Your task to perform on an android device: change notifications settings Image 0: 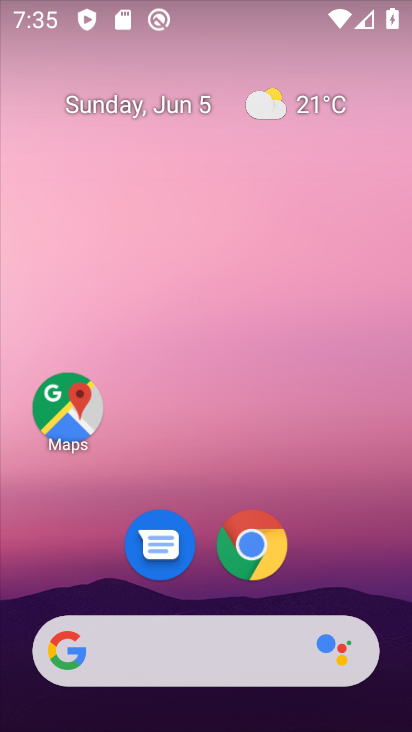
Step 0: drag from (249, 576) to (231, 192)
Your task to perform on an android device: change notifications settings Image 1: 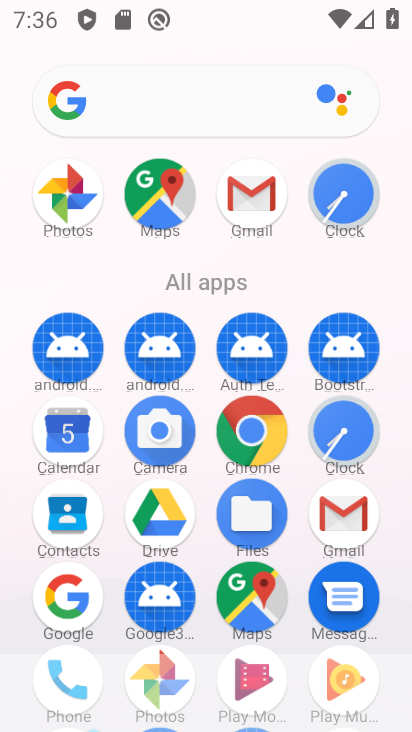
Step 1: drag from (201, 425) to (209, 16)
Your task to perform on an android device: change notifications settings Image 2: 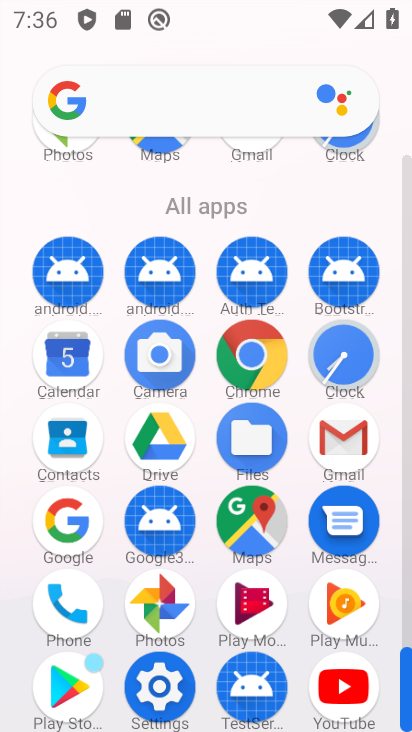
Step 2: click (162, 690)
Your task to perform on an android device: change notifications settings Image 3: 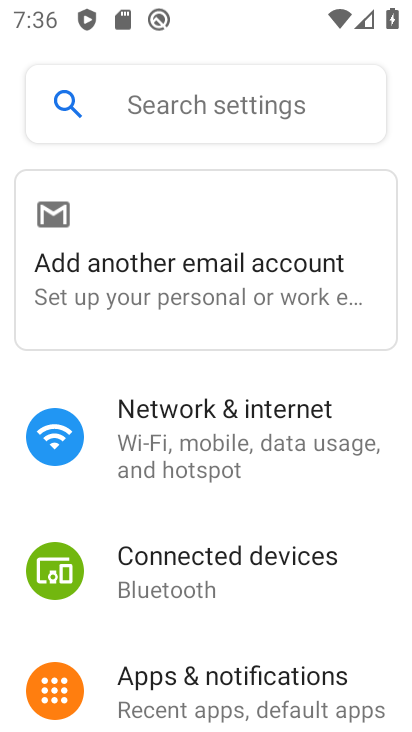
Step 3: click (256, 687)
Your task to perform on an android device: change notifications settings Image 4: 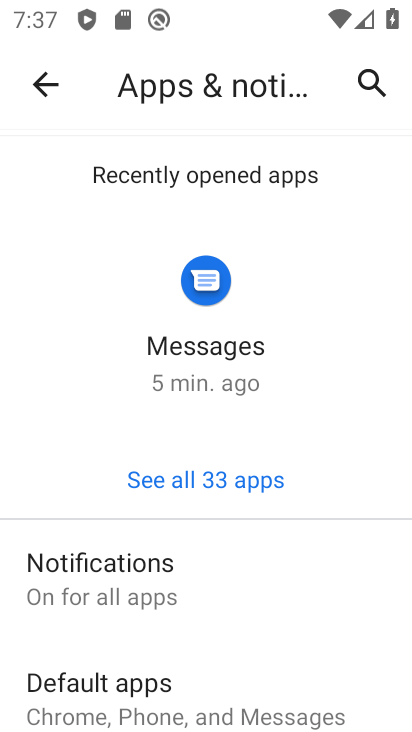
Step 4: click (138, 584)
Your task to perform on an android device: change notifications settings Image 5: 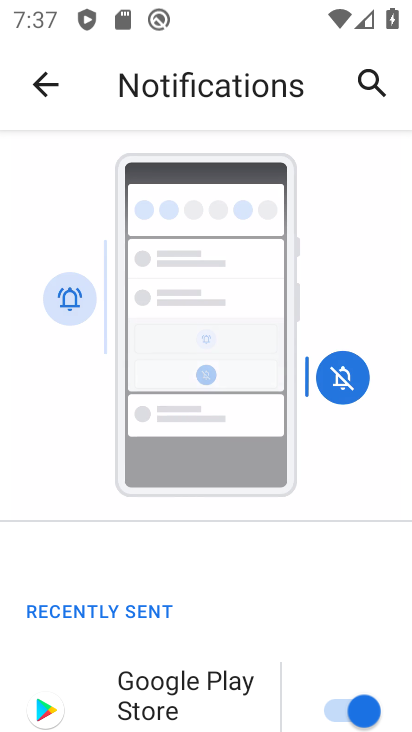
Step 5: click (333, 708)
Your task to perform on an android device: change notifications settings Image 6: 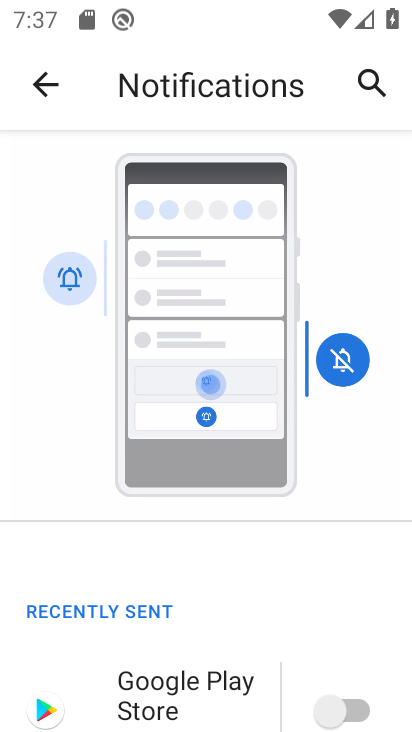
Step 6: task complete